Your task to perform on an android device: Open calendar and show me the third week of next month Image 0: 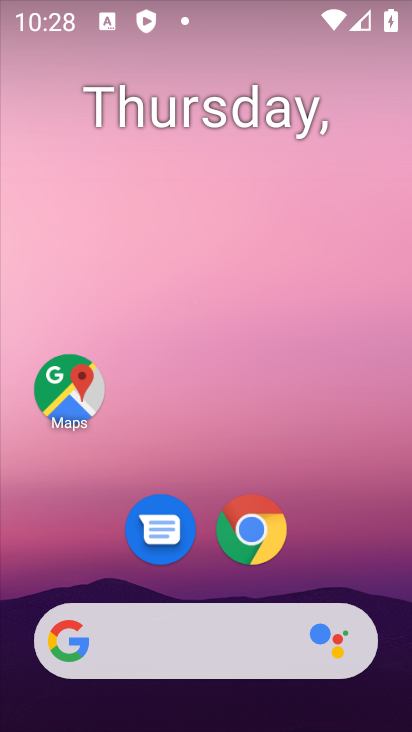
Step 0: drag from (244, 468) to (293, 150)
Your task to perform on an android device: Open calendar and show me the third week of next month Image 1: 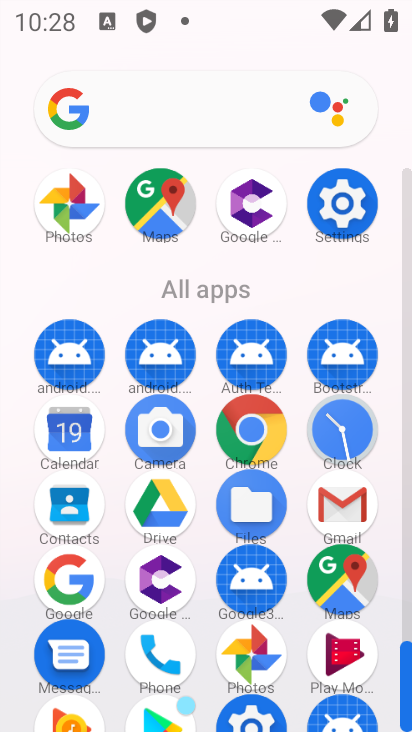
Step 1: click (73, 450)
Your task to perform on an android device: Open calendar and show me the third week of next month Image 2: 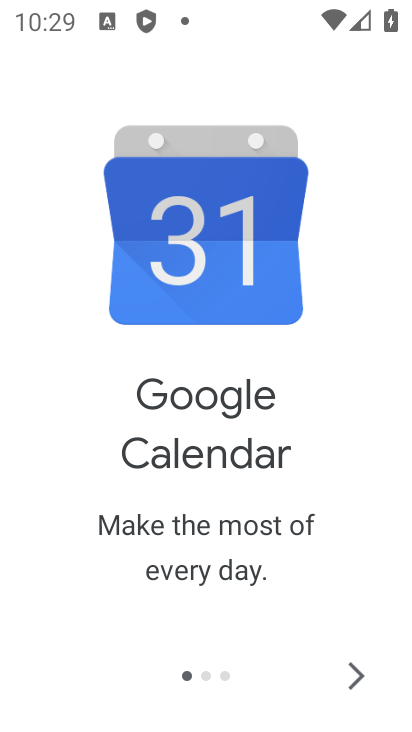
Step 2: click (353, 676)
Your task to perform on an android device: Open calendar and show me the third week of next month Image 3: 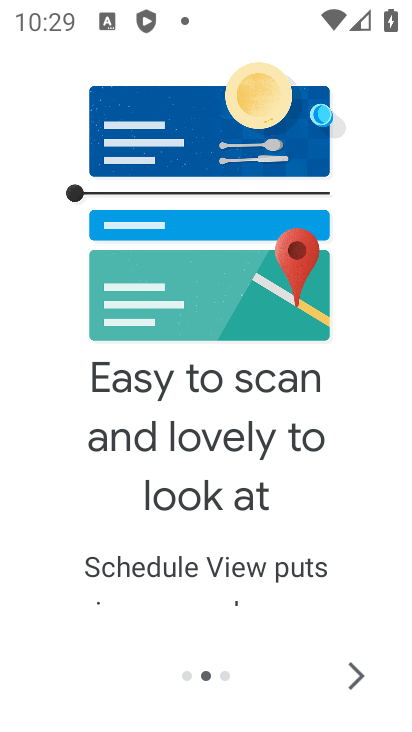
Step 3: click (365, 690)
Your task to perform on an android device: Open calendar and show me the third week of next month Image 4: 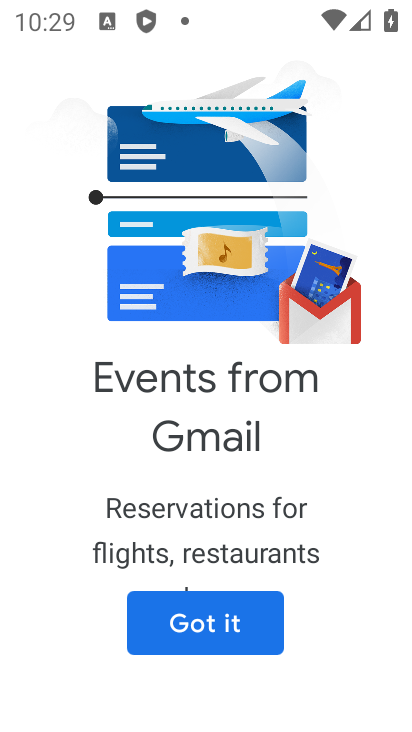
Step 4: click (263, 635)
Your task to perform on an android device: Open calendar and show me the third week of next month Image 5: 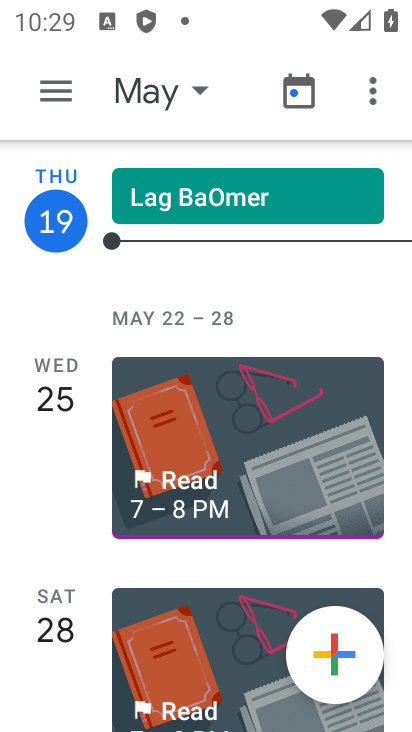
Step 5: click (188, 97)
Your task to perform on an android device: Open calendar and show me the third week of next month Image 6: 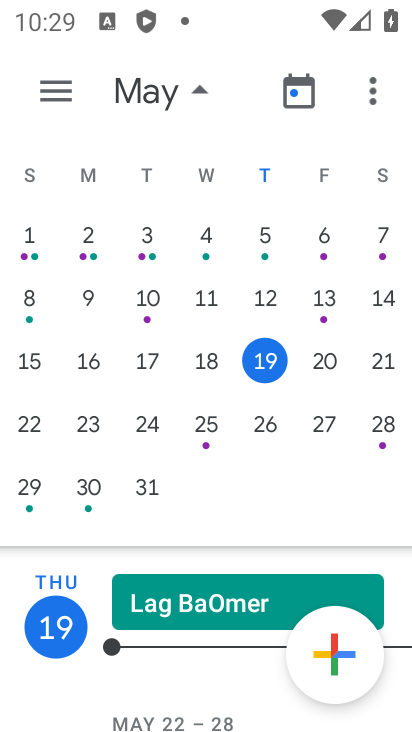
Step 6: drag from (359, 428) to (2, 389)
Your task to perform on an android device: Open calendar and show me the third week of next month Image 7: 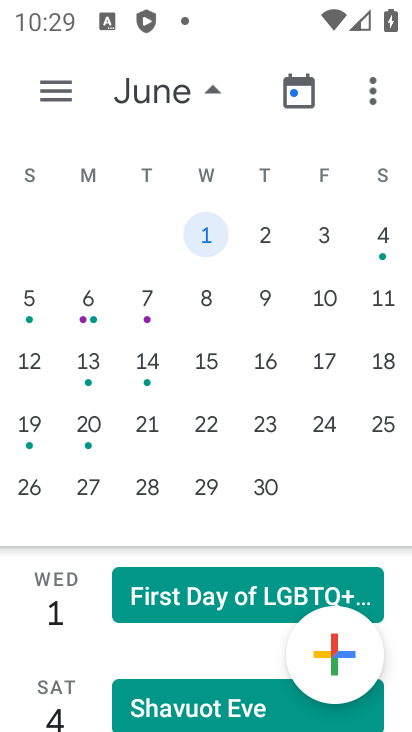
Step 7: drag from (279, 443) to (223, 447)
Your task to perform on an android device: Open calendar and show me the third week of next month Image 8: 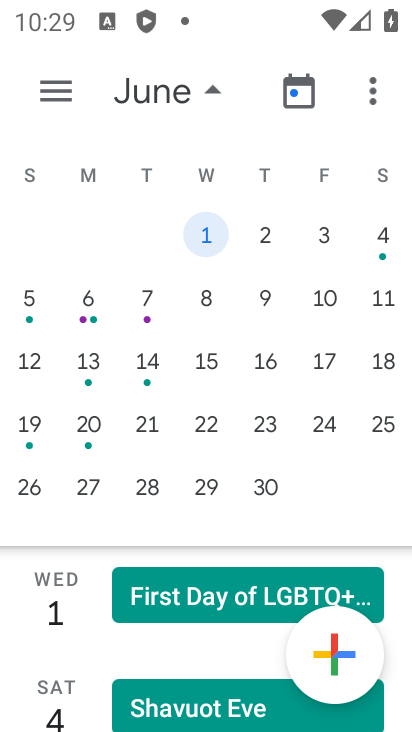
Step 8: click (36, 439)
Your task to perform on an android device: Open calendar and show me the third week of next month Image 9: 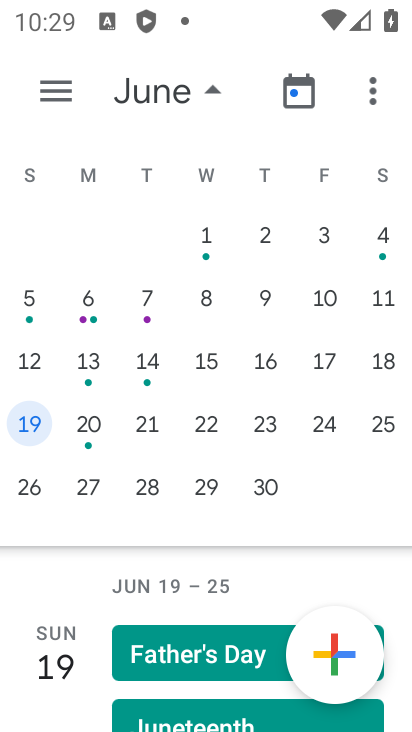
Step 9: task complete